Your task to perform on an android device: Open CNN.com Image 0: 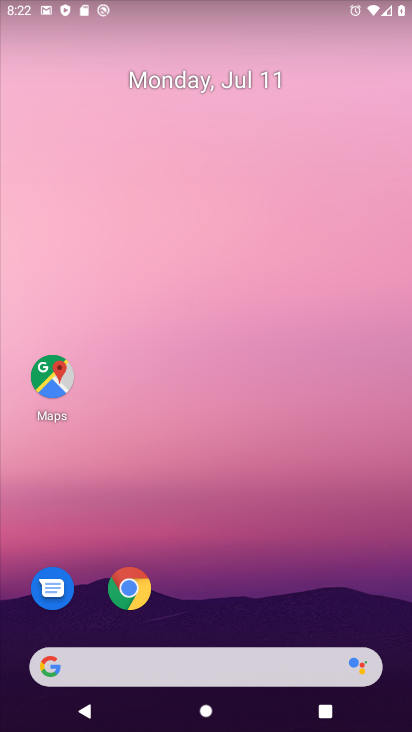
Step 0: click (127, 590)
Your task to perform on an android device: Open CNN.com Image 1: 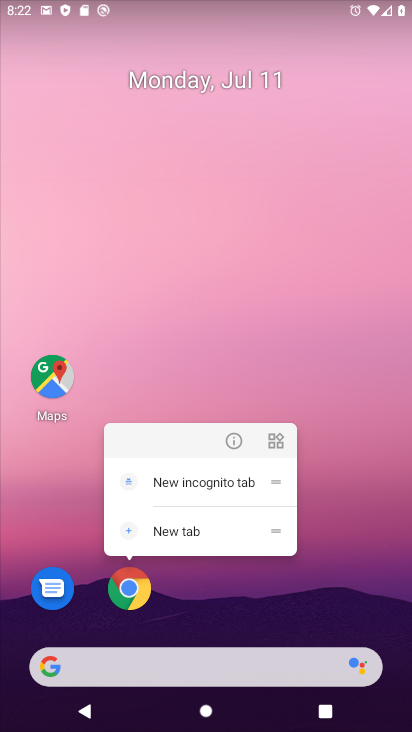
Step 1: click (135, 597)
Your task to perform on an android device: Open CNN.com Image 2: 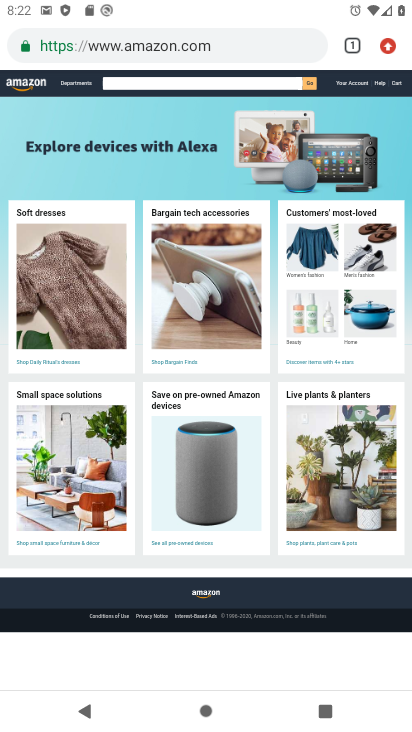
Step 2: drag from (305, 109) to (303, 469)
Your task to perform on an android device: Open CNN.com Image 3: 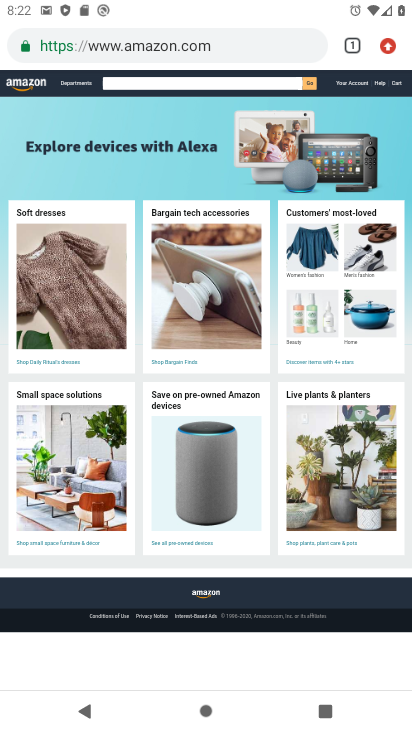
Step 3: click (386, 42)
Your task to perform on an android device: Open CNN.com Image 4: 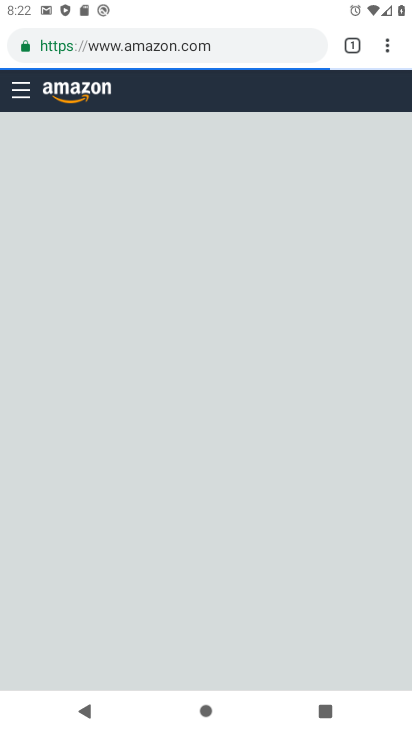
Step 4: drag from (389, 46) to (281, 154)
Your task to perform on an android device: Open CNN.com Image 5: 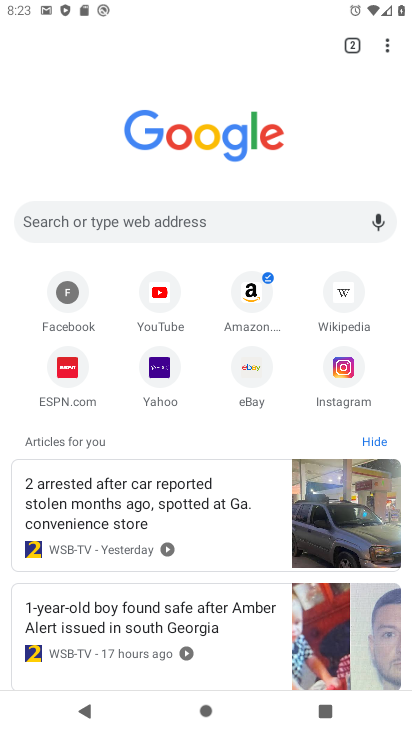
Step 5: click (112, 212)
Your task to perform on an android device: Open CNN.com Image 6: 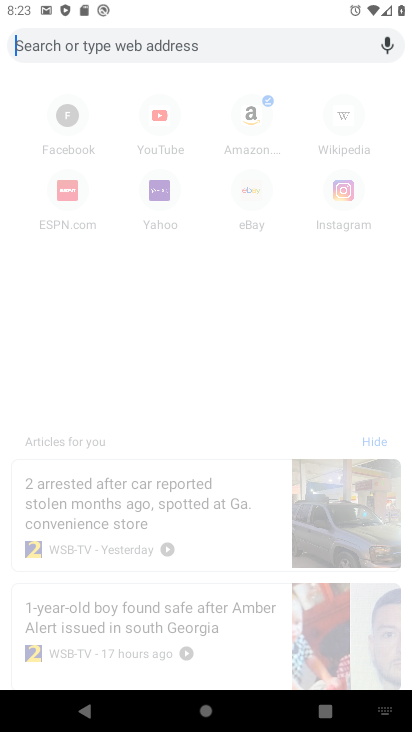
Step 6: type "cnn.com"
Your task to perform on an android device: Open CNN.com Image 7: 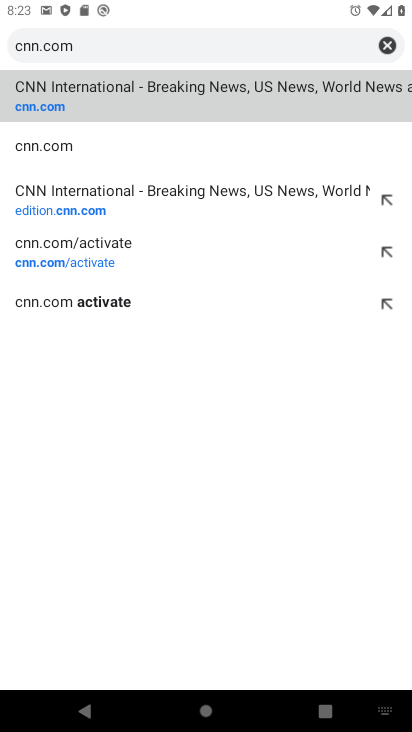
Step 7: click (230, 90)
Your task to perform on an android device: Open CNN.com Image 8: 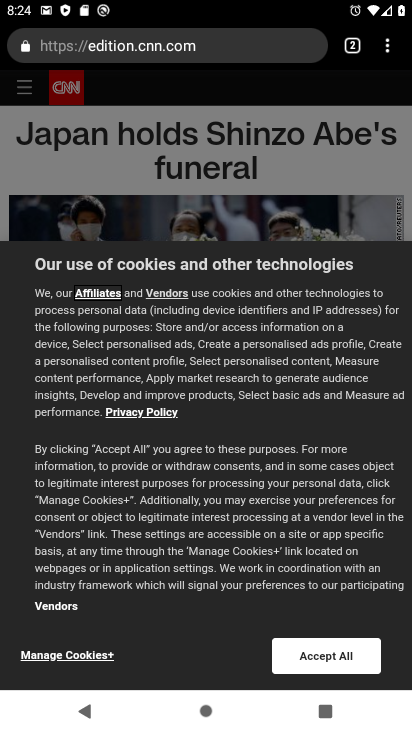
Step 8: click (317, 671)
Your task to perform on an android device: Open CNN.com Image 9: 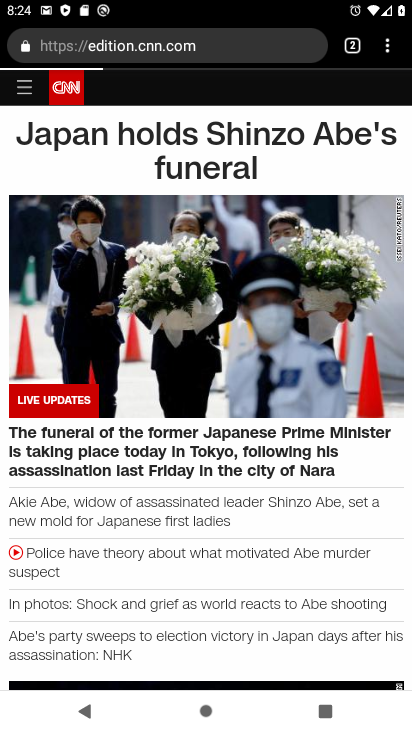
Step 9: task complete